Your task to perform on an android device: find snoozed emails in the gmail app Image 0: 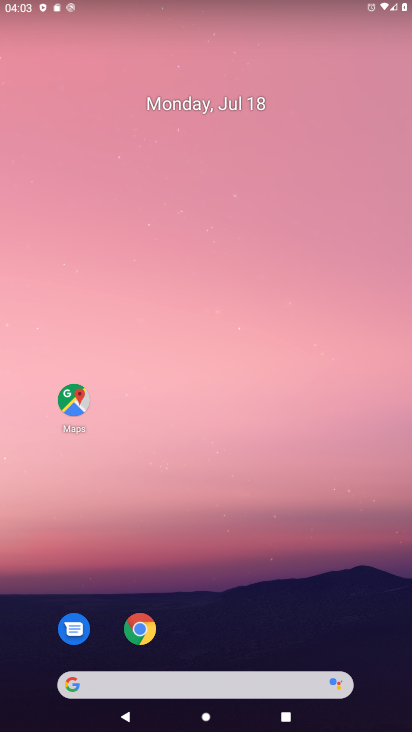
Step 0: drag from (363, 677) to (280, 105)
Your task to perform on an android device: find snoozed emails in the gmail app Image 1: 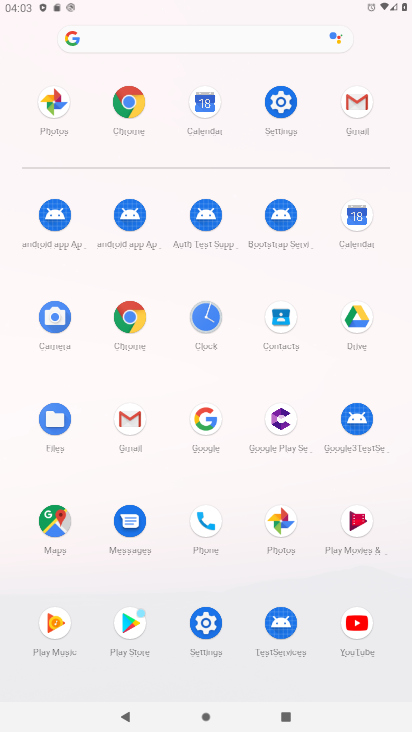
Step 1: click (130, 420)
Your task to perform on an android device: find snoozed emails in the gmail app Image 2: 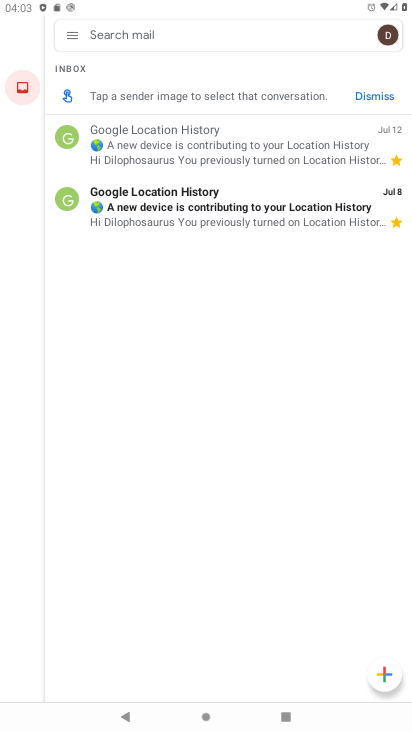
Step 2: click (64, 35)
Your task to perform on an android device: find snoozed emails in the gmail app Image 3: 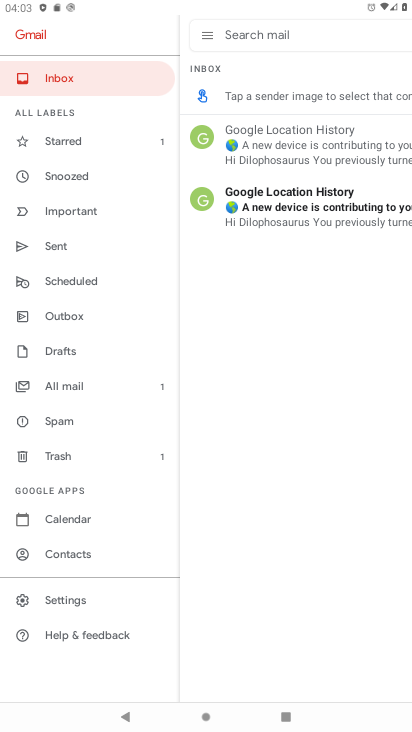
Step 3: click (63, 171)
Your task to perform on an android device: find snoozed emails in the gmail app Image 4: 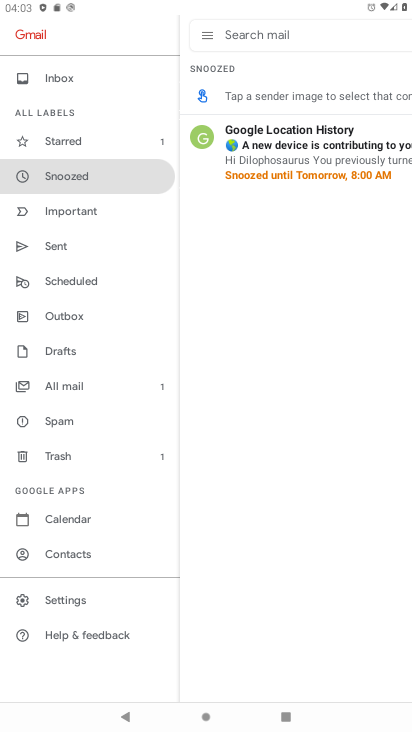
Step 4: task complete